Your task to perform on an android device: Open my contact list Image 0: 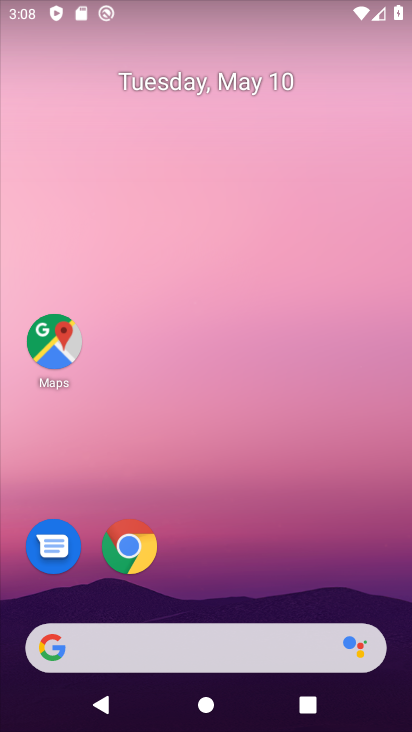
Step 0: drag from (226, 596) to (274, 59)
Your task to perform on an android device: Open my contact list Image 1: 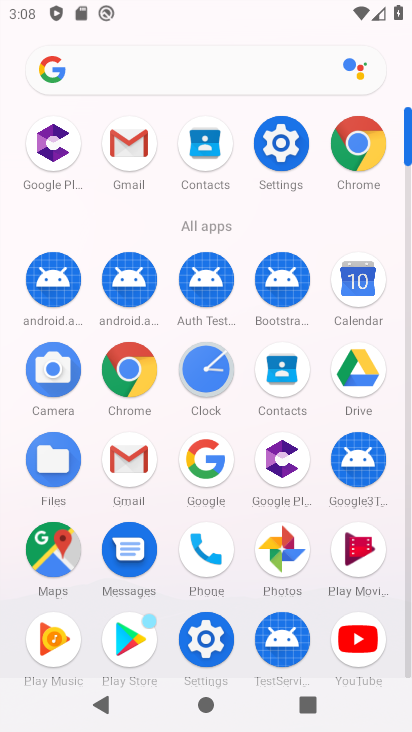
Step 1: click (302, 385)
Your task to perform on an android device: Open my contact list Image 2: 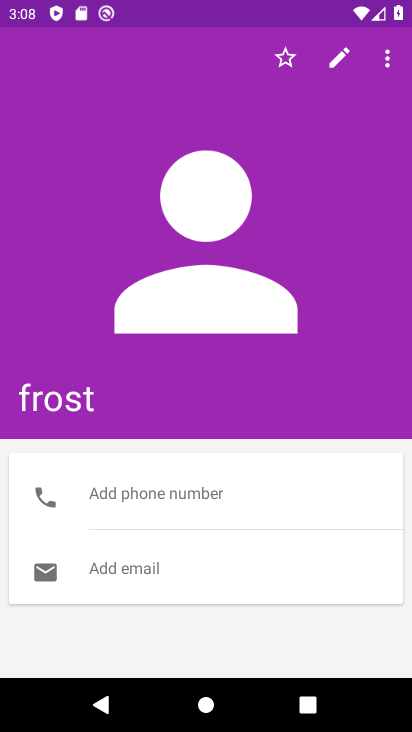
Step 2: task complete